Your task to perform on an android device: open app "Google Sheets" Image 0: 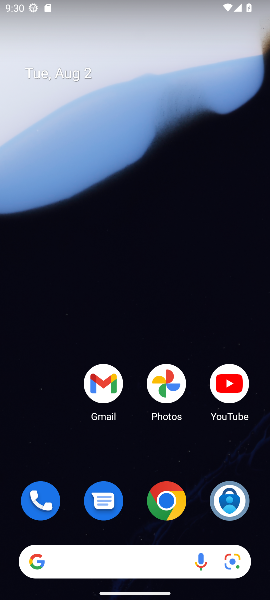
Step 0: drag from (133, 508) to (110, 137)
Your task to perform on an android device: open app "Google Sheets" Image 1: 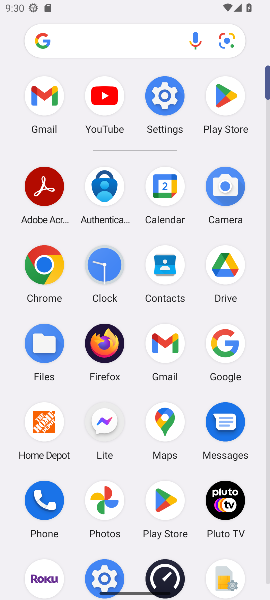
Step 1: click (217, 98)
Your task to perform on an android device: open app "Google Sheets" Image 2: 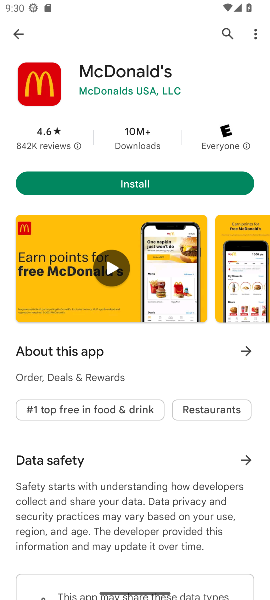
Step 2: drag from (162, 111) to (204, 587)
Your task to perform on an android device: open app "Google Sheets" Image 3: 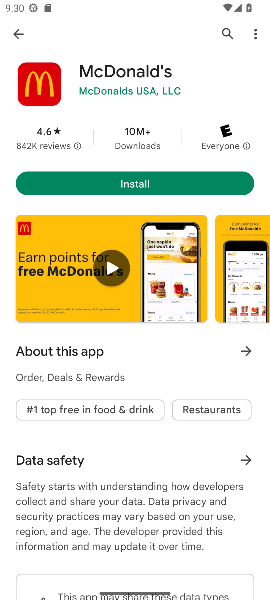
Step 3: click (233, 27)
Your task to perform on an android device: open app "Google Sheets" Image 4: 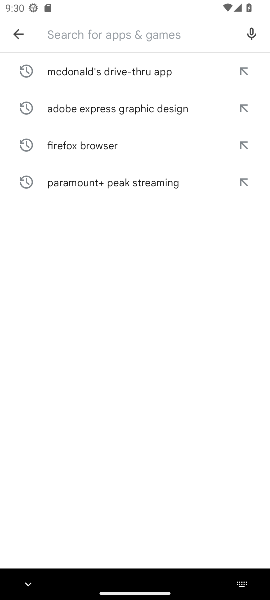
Step 4: type "Google Sheets"
Your task to perform on an android device: open app "Google Sheets" Image 5: 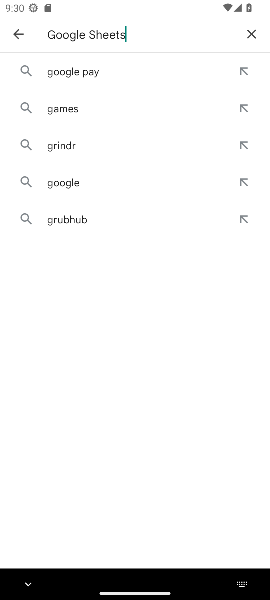
Step 5: type ""
Your task to perform on an android device: open app "Google Sheets" Image 6: 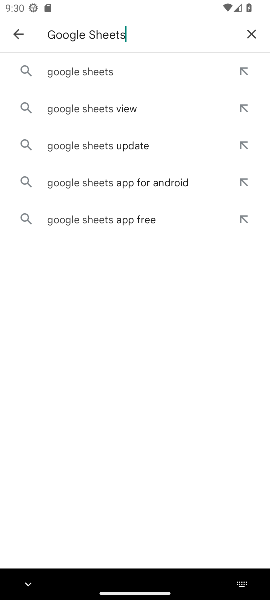
Step 6: click (62, 73)
Your task to perform on an android device: open app "Google Sheets" Image 7: 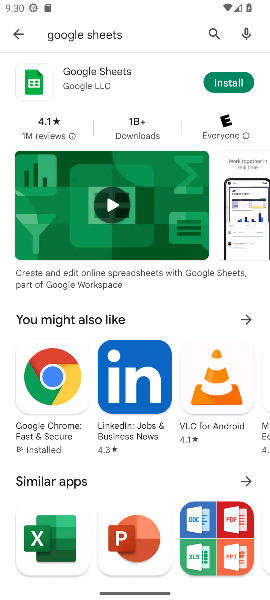
Step 7: drag from (127, 107) to (144, 537)
Your task to perform on an android device: open app "Google Sheets" Image 8: 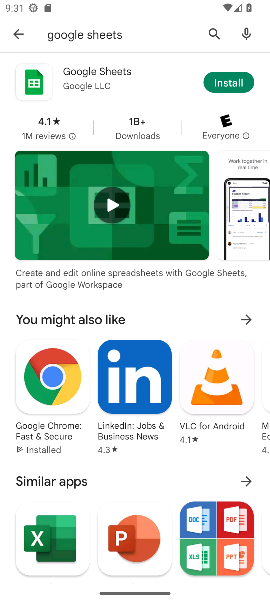
Step 8: click (109, 76)
Your task to perform on an android device: open app "Google Sheets" Image 9: 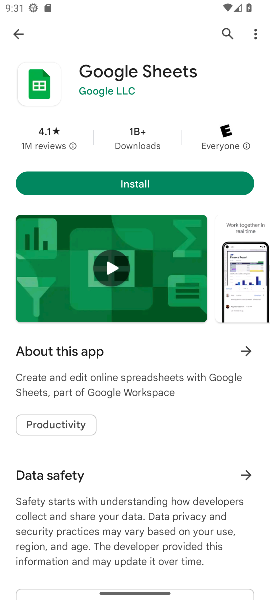
Step 9: task complete